Your task to perform on an android device: Open Google Maps Image 0: 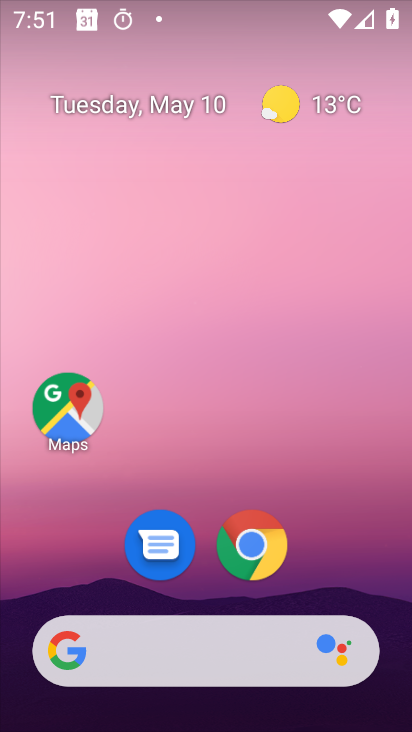
Step 0: click (66, 406)
Your task to perform on an android device: Open Google Maps Image 1: 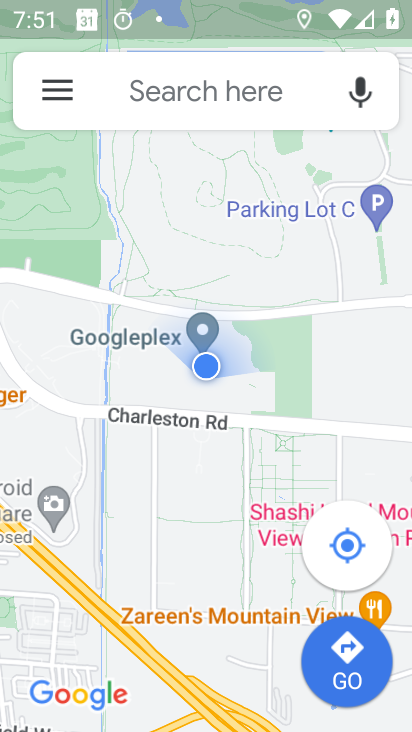
Step 1: task complete